Your task to perform on an android device: Open the calendar app, open the side menu, and click the "Day" option Image 0: 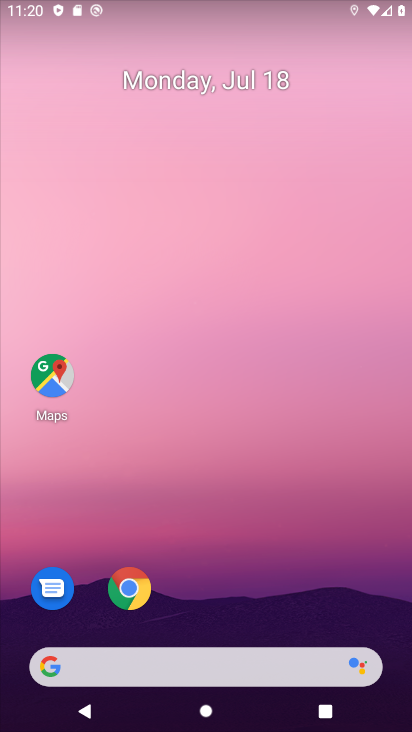
Step 0: drag from (283, 621) to (280, 81)
Your task to perform on an android device: Open the calendar app, open the side menu, and click the "Day" option Image 1: 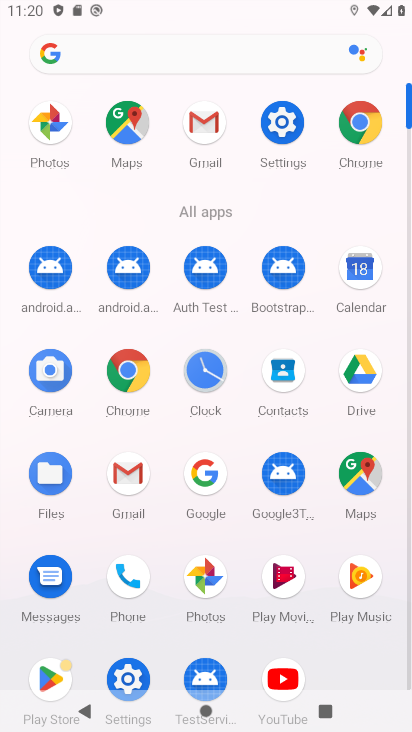
Step 1: click (345, 283)
Your task to perform on an android device: Open the calendar app, open the side menu, and click the "Day" option Image 2: 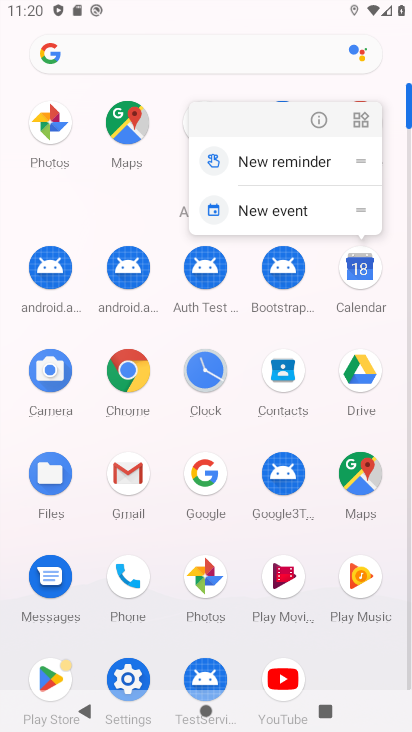
Step 2: click (351, 290)
Your task to perform on an android device: Open the calendar app, open the side menu, and click the "Day" option Image 3: 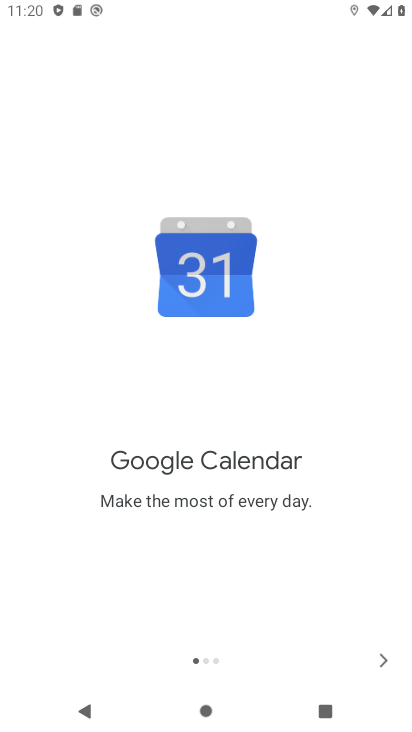
Step 3: click (376, 660)
Your task to perform on an android device: Open the calendar app, open the side menu, and click the "Day" option Image 4: 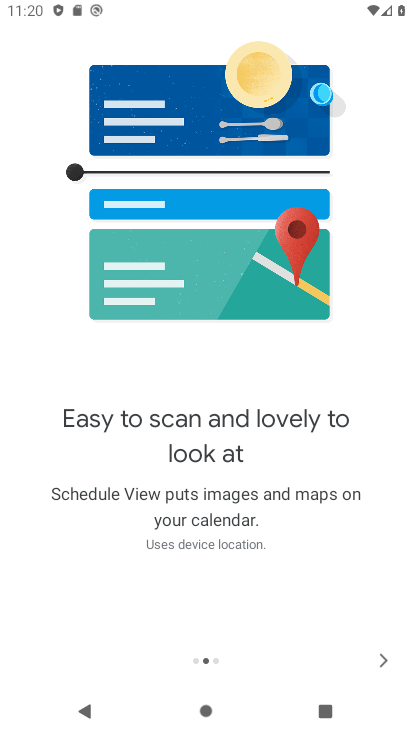
Step 4: click (381, 658)
Your task to perform on an android device: Open the calendar app, open the side menu, and click the "Day" option Image 5: 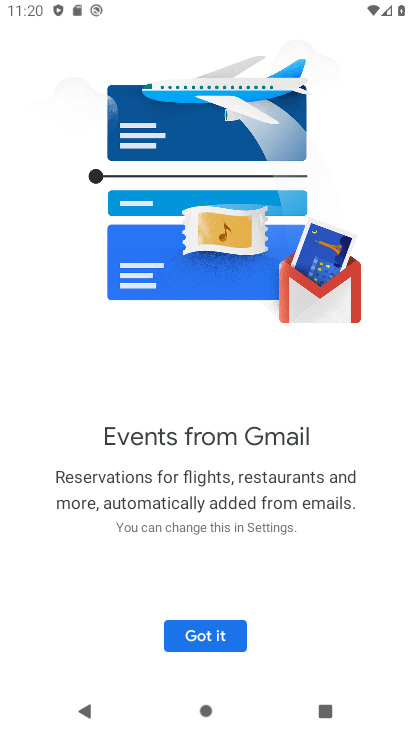
Step 5: click (226, 626)
Your task to perform on an android device: Open the calendar app, open the side menu, and click the "Day" option Image 6: 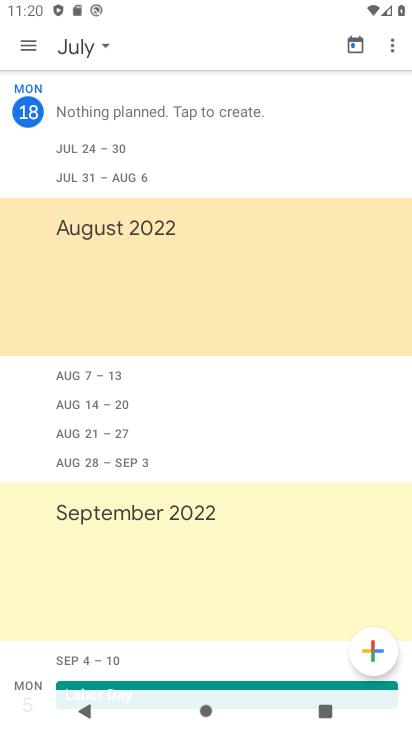
Step 6: click (28, 37)
Your task to perform on an android device: Open the calendar app, open the side menu, and click the "Day" option Image 7: 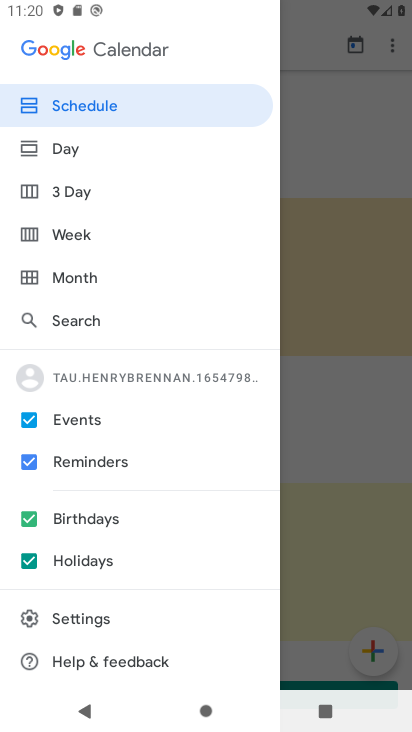
Step 7: click (89, 154)
Your task to perform on an android device: Open the calendar app, open the side menu, and click the "Day" option Image 8: 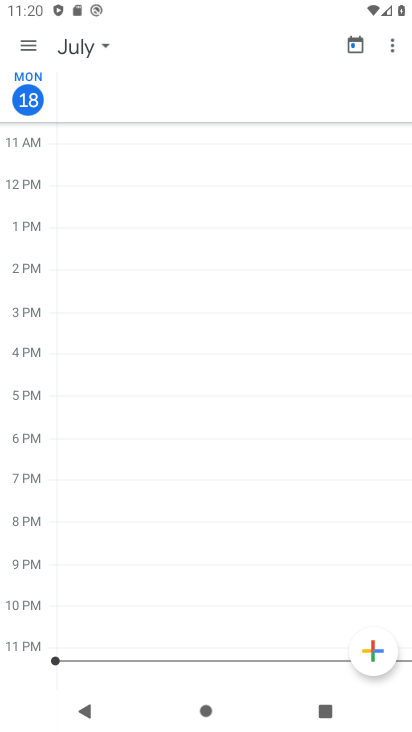
Step 8: task complete